Your task to perform on an android device: uninstall "Roku - Official Remote Control" Image 0: 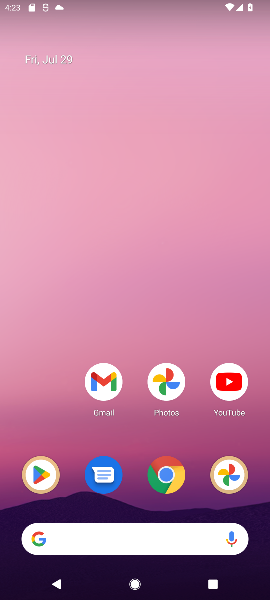
Step 0: press home button
Your task to perform on an android device: uninstall "Roku - Official Remote Control" Image 1: 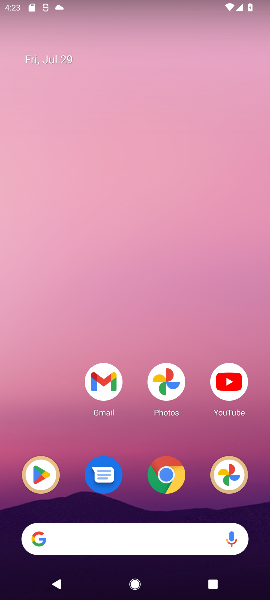
Step 1: click (31, 478)
Your task to perform on an android device: uninstall "Roku - Official Remote Control" Image 2: 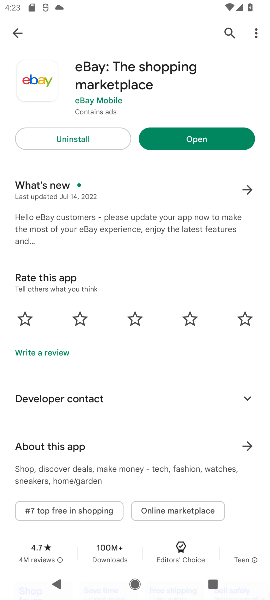
Step 2: click (17, 31)
Your task to perform on an android device: uninstall "Roku - Official Remote Control" Image 3: 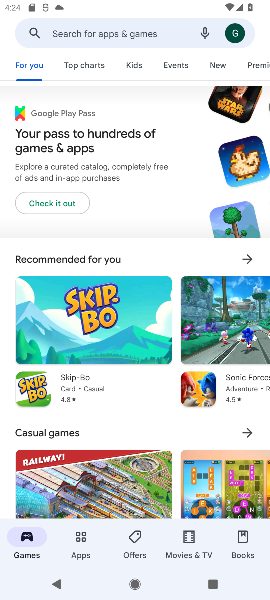
Step 3: click (100, 33)
Your task to perform on an android device: uninstall "Roku - Official Remote Control" Image 4: 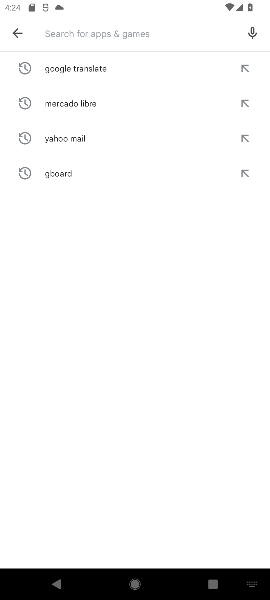
Step 4: type "Roku - Official Remote Control"
Your task to perform on an android device: uninstall "Roku - Official Remote Control" Image 5: 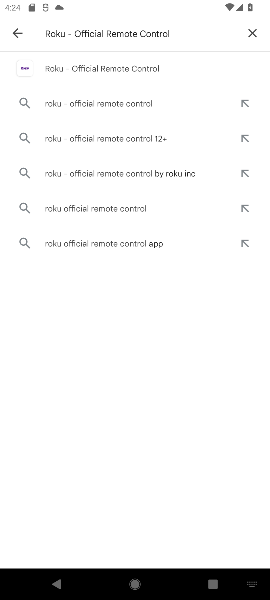
Step 5: click (118, 65)
Your task to perform on an android device: uninstall "Roku - Official Remote Control" Image 6: 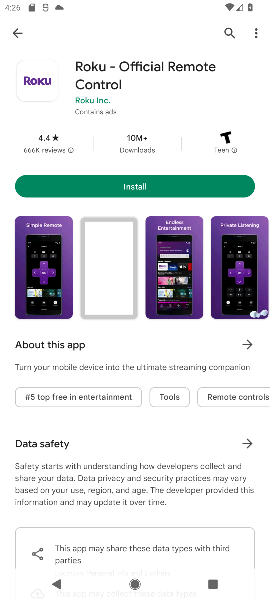
Step 6: click (140, 190)
Your task to perform on an android device: uninstall "Roku - Official Remote Control" Image 7: 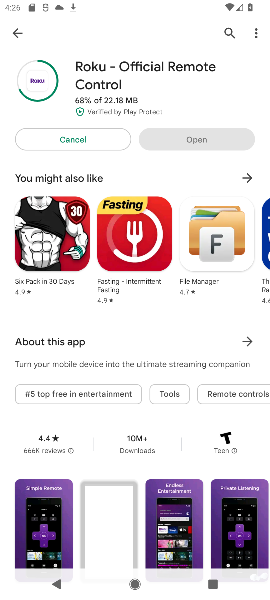
Step 7: click (73, 133)
Your task to perform on an android device: uninstall "Roku - Official Remote Control" Image 8: 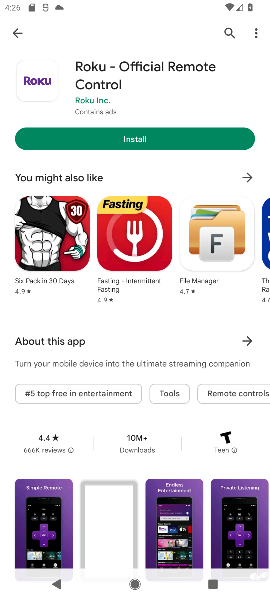
Step 8: task complete